Your task to perform on an android device: Open the phone app and click the voicemail tab. Image 0: 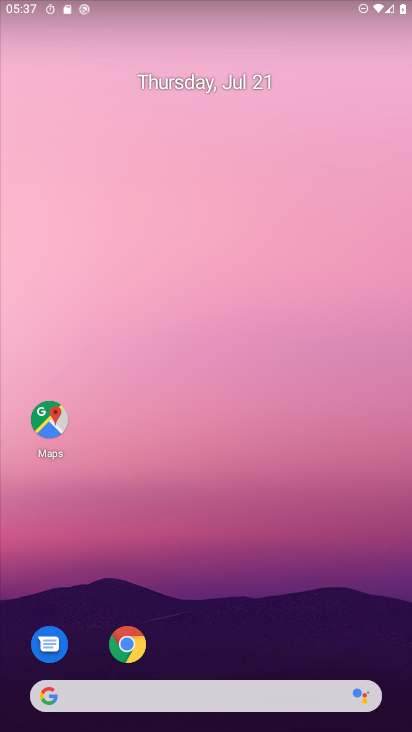
Step 0: drag from (172, 585) to (175, 215)
Your task to perform on an android device: Open the phone app and click the voicemail tab. Image 1: 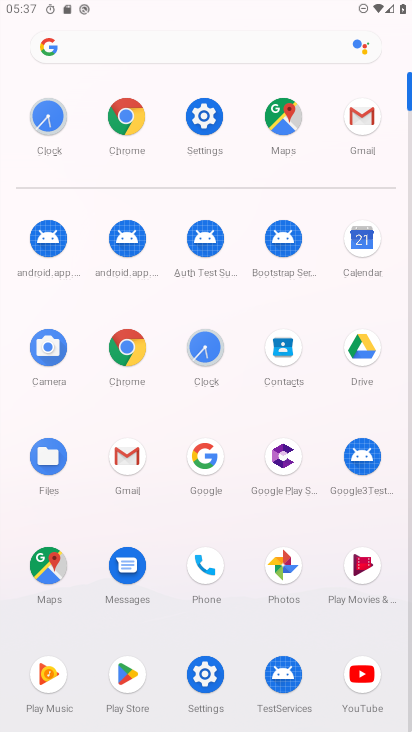
Step 1: click (203, 580)
Your task to perform on an android device: Open the phone app and click the voicemail tab. Image 2: 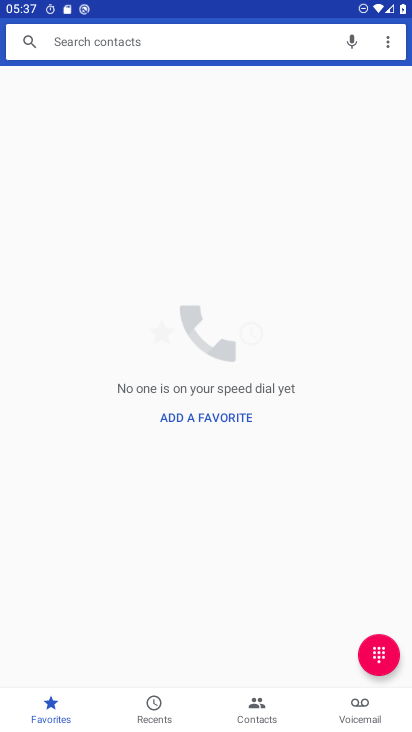
Step 2: click (352, 704)
Your task to perform on an android device: Open the phone app and click the voicemail tab. Image 3: 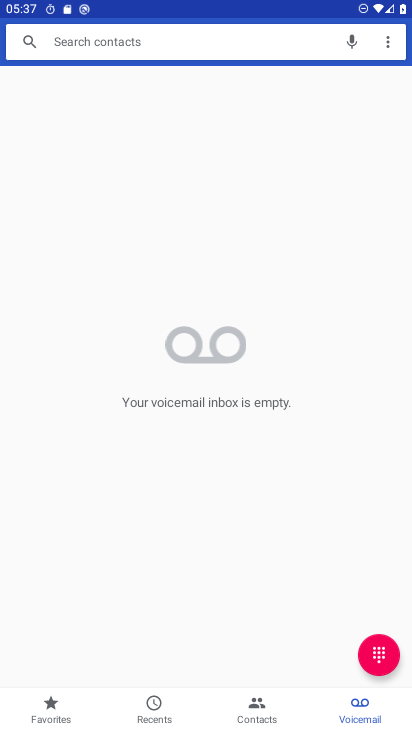
Step 3: task complete